Your task to perform on an android device: Open calendar and show me the fourth week of next month Image 0: 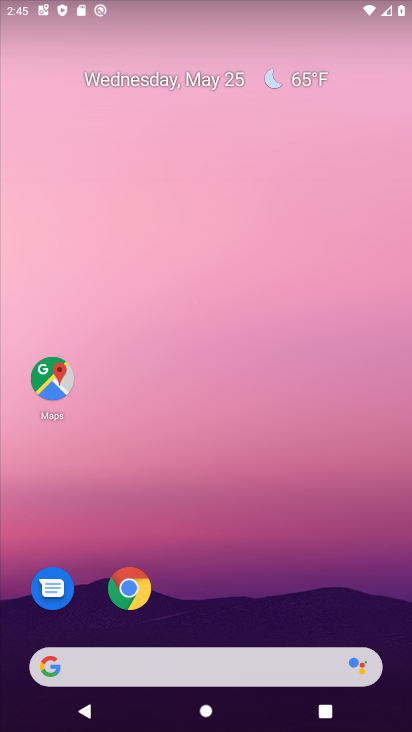
Step 0: drag from (193, 602) to (244, 229)
Your task to perform on an android device: Open calendar and show me the fourth week of next month Image 1: 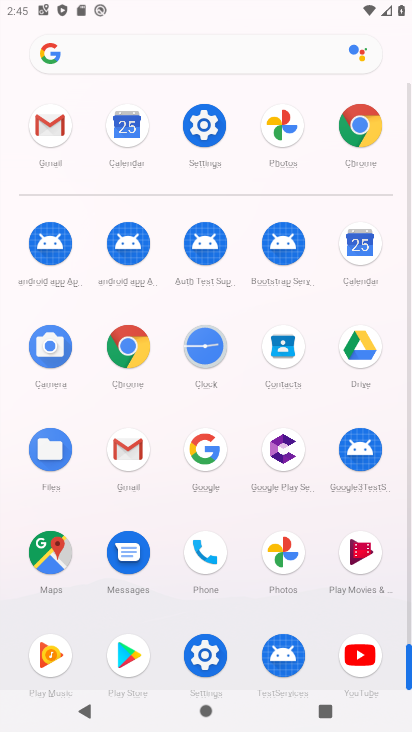
Step 1: click (353, 249)
Your task to perform on an android device: Open calendar and show me the fourth week of next month Image 2: 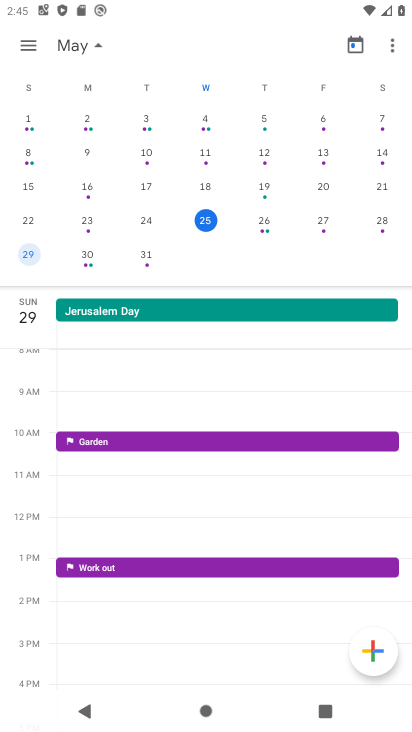
Step 2: drag from (396, 180) to (70, 152)
Your task to perform on an android device: Open calendar and show me the fourth week of next month Image 3: 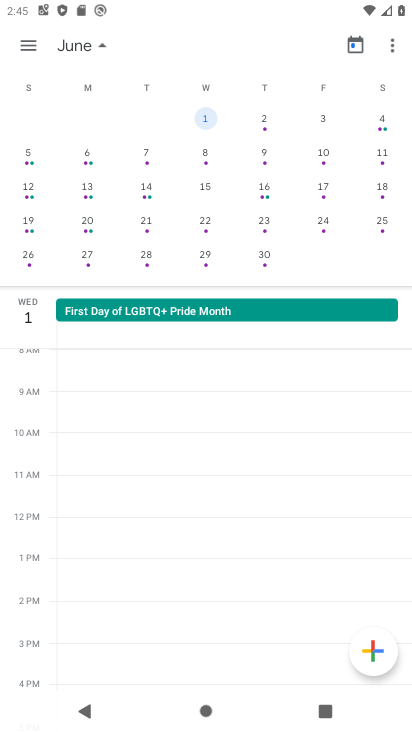
Step 3: click (201, 215)
Your task to perform on an android device: Open calendar and show me the fourth week of next month Image 4: 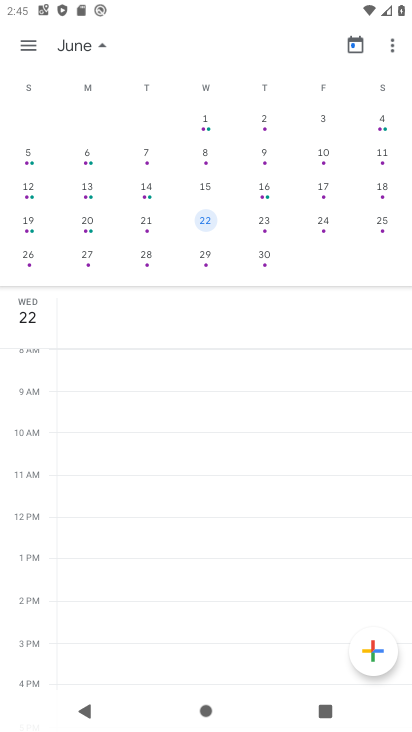
Step 4: click (267, 219)
Your task to perform on an android device: Open calendar and show me the fourth week of next month Image 5: 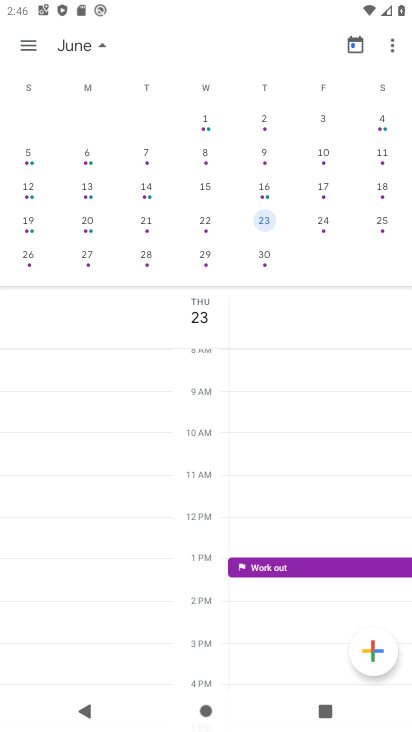
Step 5: click (316, 220)
Your task to perform on an android device: Open calendar and show me the fourth week of next month Image 6: 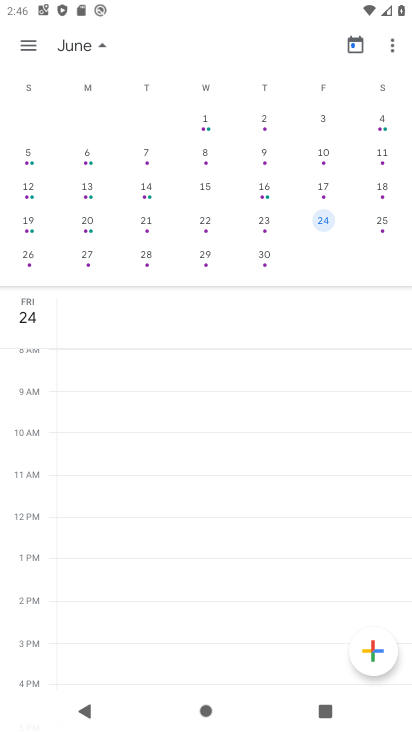
Step 6: click (385, 218)
Your task to perform on an android device: Open calendar and show me the fourth week of next month Image 7: 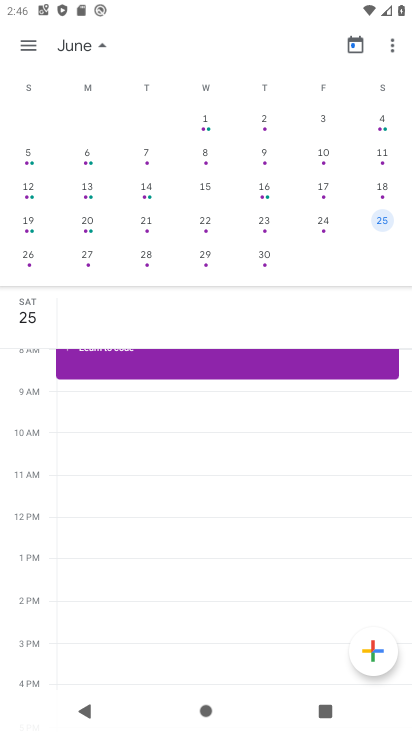
Step 7: click (139, 225)
Your task to perform on an android device: Open calendar and show me the fourth week of next month Image 8: 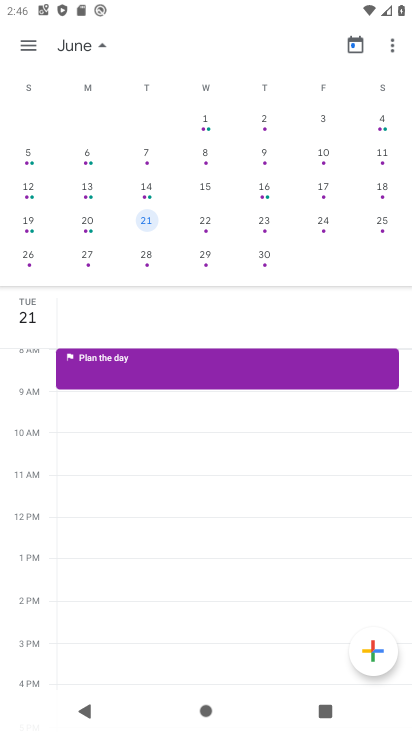
Step 8: click (90, 218)
Your task to perform on an android device: Open calendar and show me the fourth week of next month Image 9: 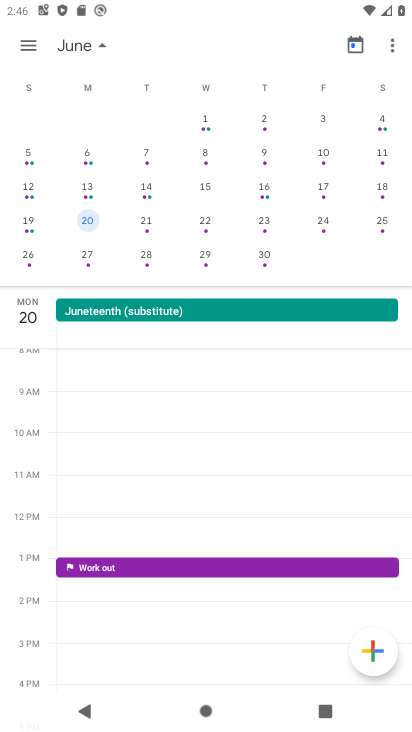
Step 9: click (36, 231)
Your task to perform on an android device: Open calendar and show me the fourth week of next month Image 10: 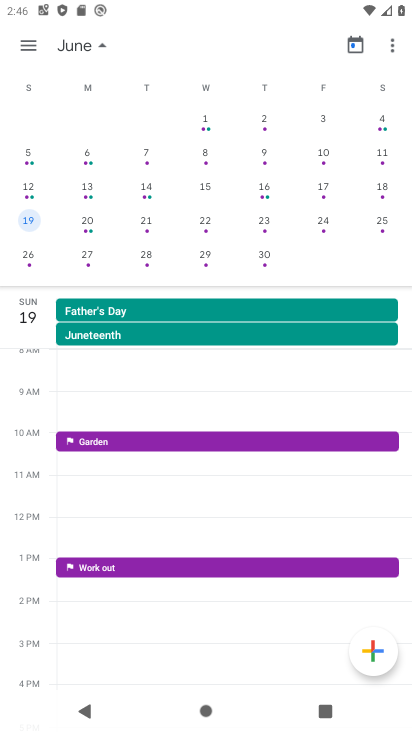
Step 10: click (34, 46)
Your task to perform on an android device: Open calendar and show me the fourth week of next month Image 11: 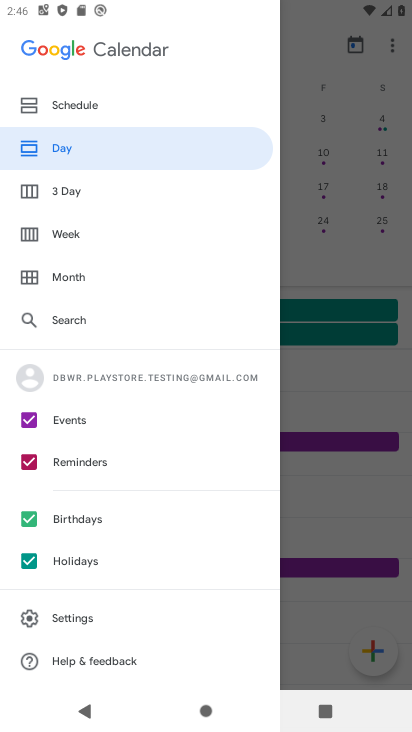
Step 11: click (94, 238)
Your task to perform on an android device: Open calendar and show me the fourth week of next month Image 12: 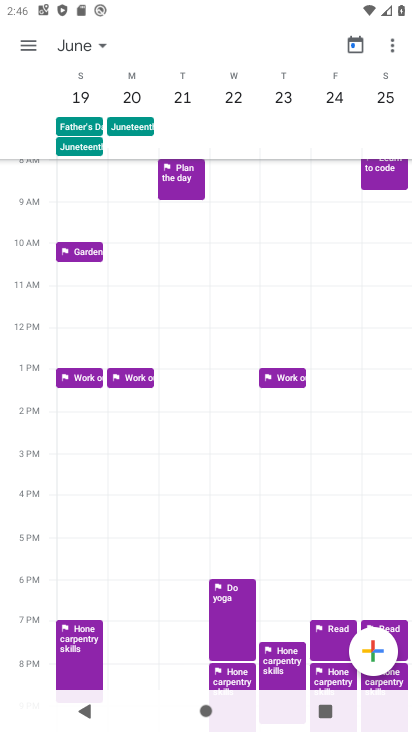
Step 12: task complete